Your task to perform on an android device: change the clock display to digital Image 0: 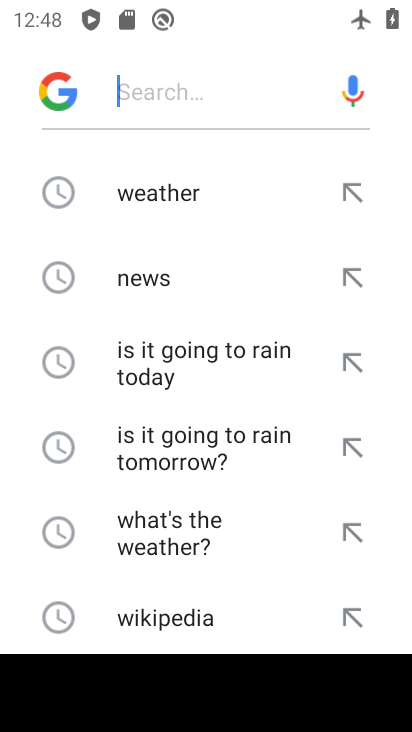
Step 0: press home button
Your task to perform on an android device: change the clock display to digital Image 1: 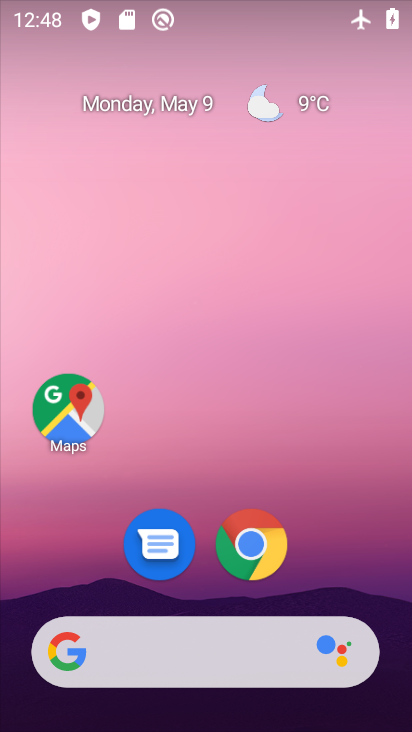
Step 1: drag from (341, 546) to (321, 134)
Your task to perform on an android device: change the clock display to digital Image 2: 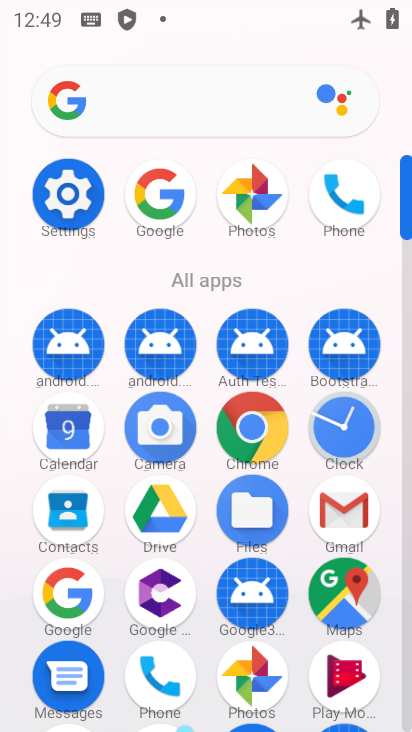
Step 2: click (333, 434)
Your task to perform on an android device: change the clock display to digital Image 3: 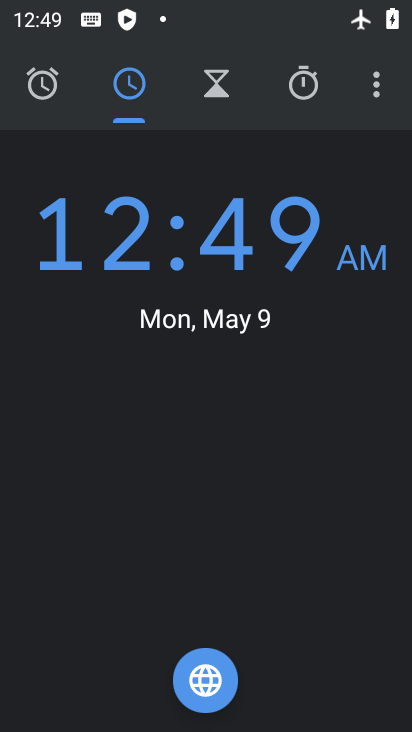
Step 3: click (384, 78)
Your task to perform on an android device: change the clock display to digital Image 4: 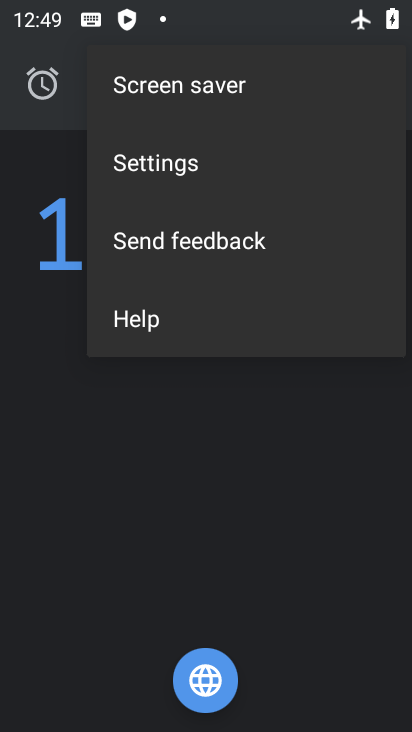
Step 4: click (181, 177)
Your task to perform on an android device: change the clock display to digital Image 5: 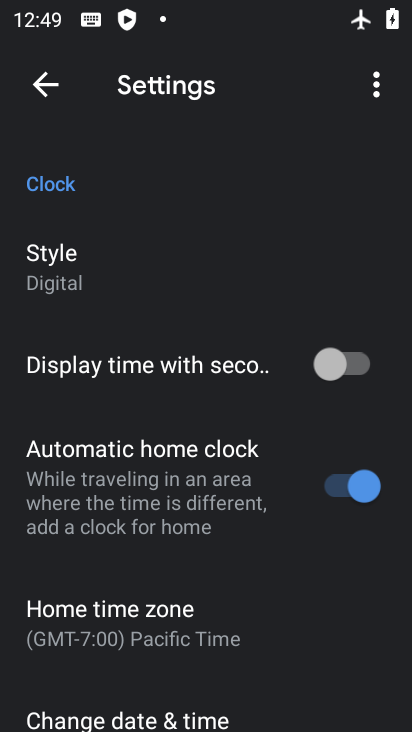
Step 5: task complete